Your task to perform on an android device: open a bookmark in the chrome app Image 0: 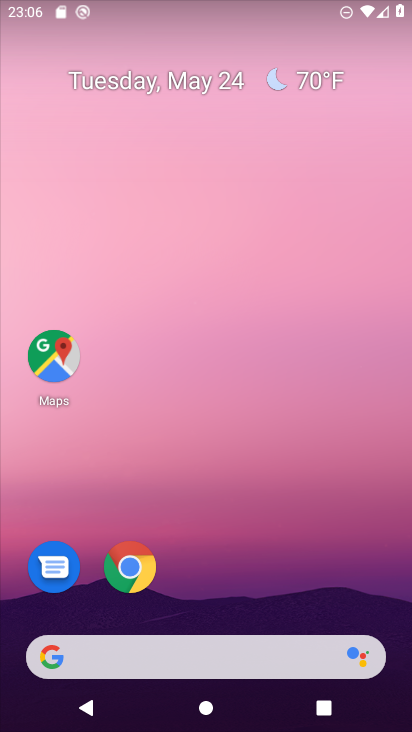
Step 0: click (137, 571)
Your task to perform on an android device: open a bookmark in the chrome app Image 1: 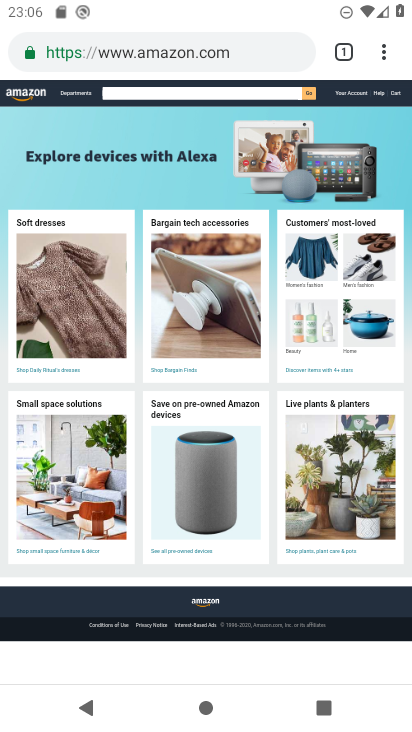
Step 1: click (395, 47)
Your task to perform on an android device: open a bookmark in the chrome app Image 2: 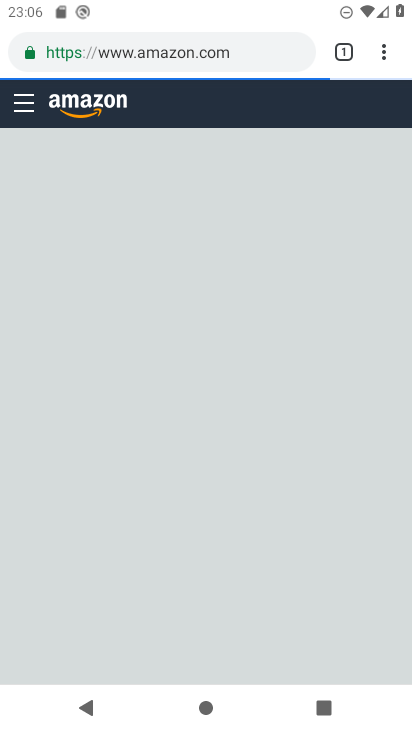
Step 2: click (388, 58)
Your task to perform on an android device: open a bookmark in the chrome app Image 3: 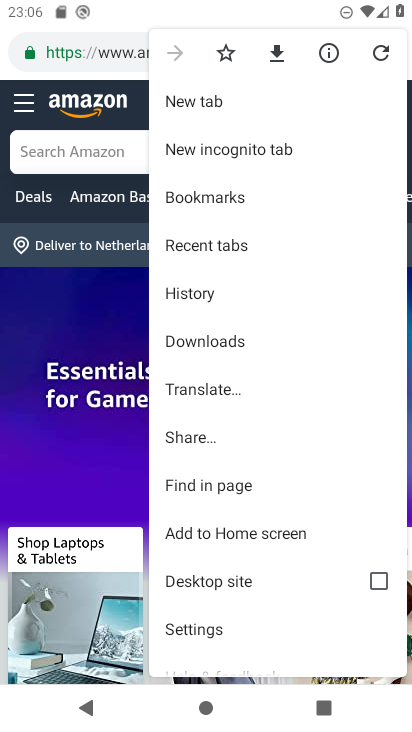
Step 3: click (228, 192)
Your task to perform on an android device: open a bookmark in the chrome app Image 4: 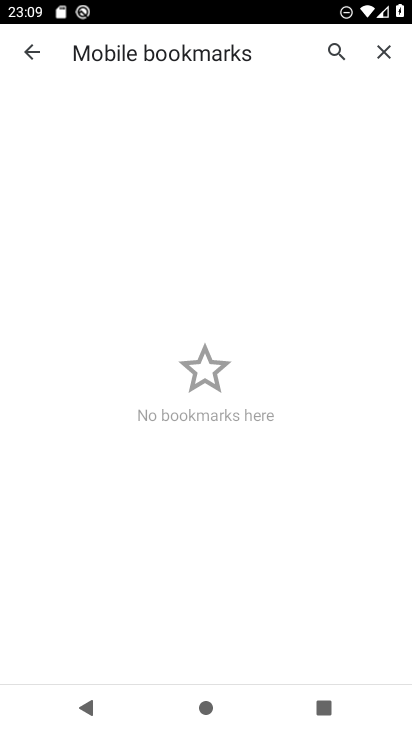
Step 4: task complete